Your task to perform on an android device: toggle pop-ups in chrome Image 0: 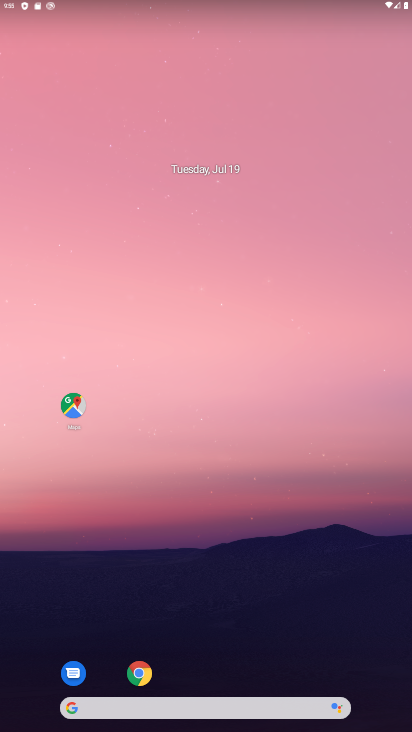
Step 0: drag from (363, 650) to (354, 136)
Your task to perform on an android device: toggle pop-ups in chrome Image 1: 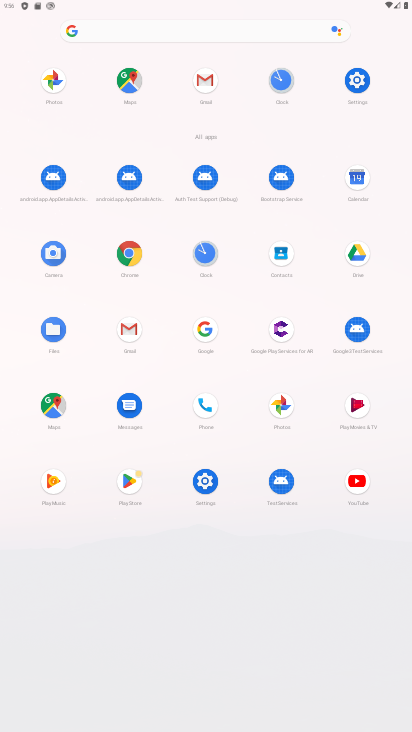
Step 1: click (132, 257)
Your task to perform on an android device: toggle pop-ups in chrome Image 2: 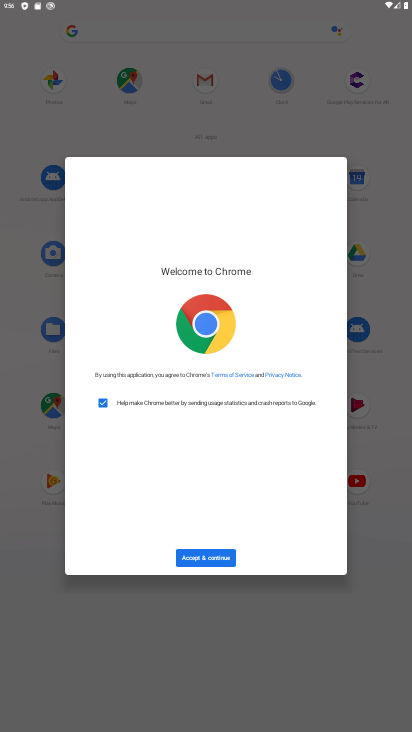
Step 2: click (206, 559)
Your task to perform on an android device: toggle pop-ups in chrome Image 3: 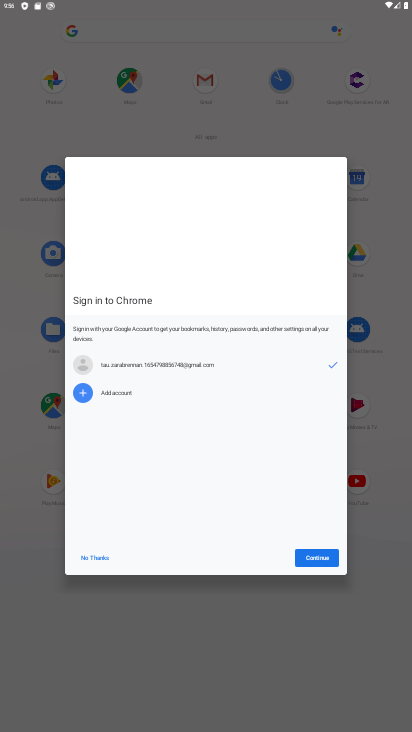
Step 3: click (314, 553)
Your task to perform on an android device: toggle pop-ups in chrome Image 4: 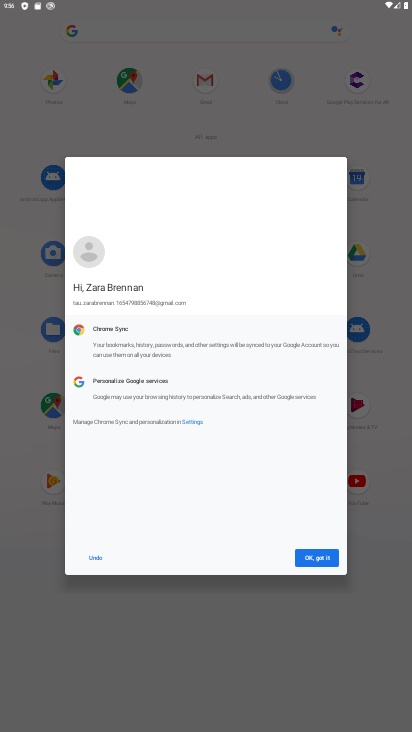
Step 4: click (314, 553)
Your task to perform on an android device: toggle pop-ups in chrome Image 5: 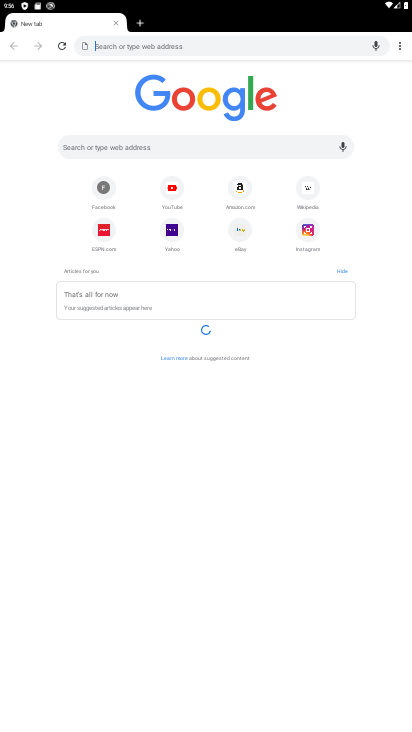
Step 5: click (399, 48)
Your task to perform on an android device: toggle pop-ups in chrome Image 6: 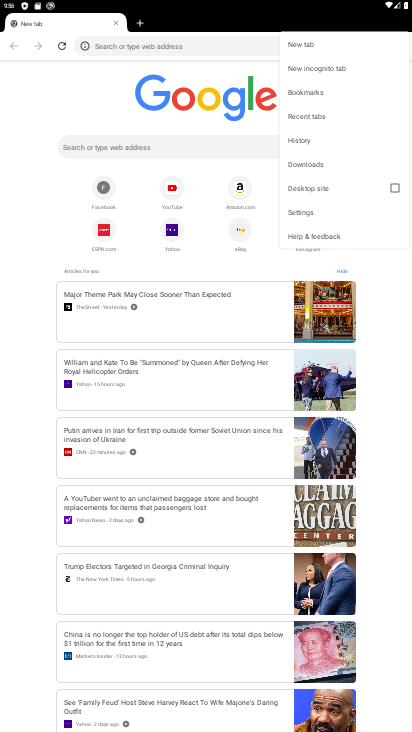
Step 6: click (338, 207)
Your task to perform on an android device: toggle pop-ups in chrome Image 7: 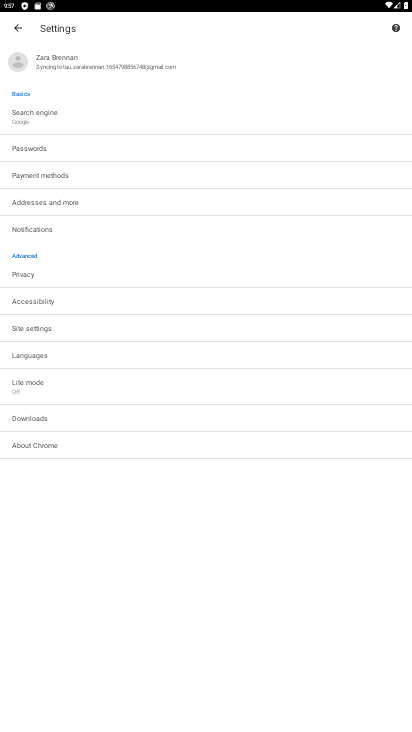
Step 7: click (125, 326)
Your task to perform on an android device: toggle pop-ups in chrome Image 8: 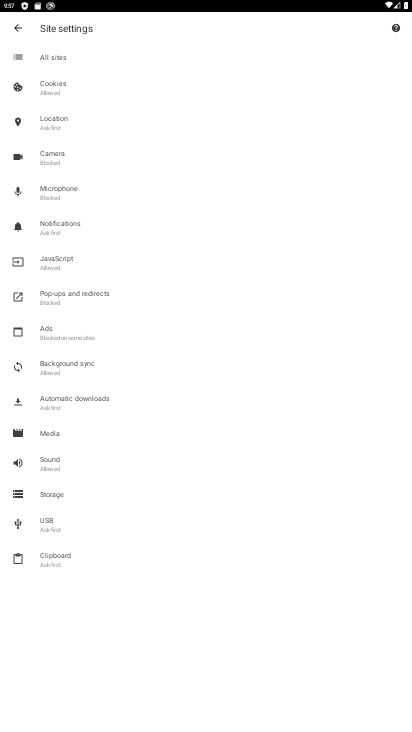
Step 8: click (100, 303)
Your task to perform on an android device: toggle pop-ups in chrome Image 9: 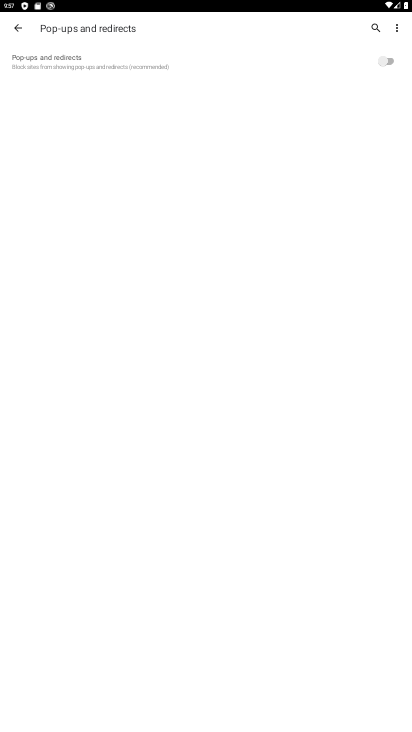
Step 9: click (376, 52)
Your task to perform on an android device: toggle pop-ups in chrome Image 10: 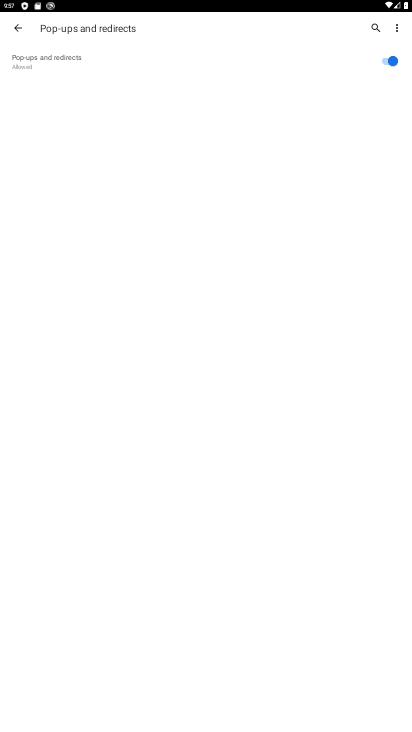
Step 10: task complete